Your task to perform on an android device: toggle javascript in the chrome app Image 0: 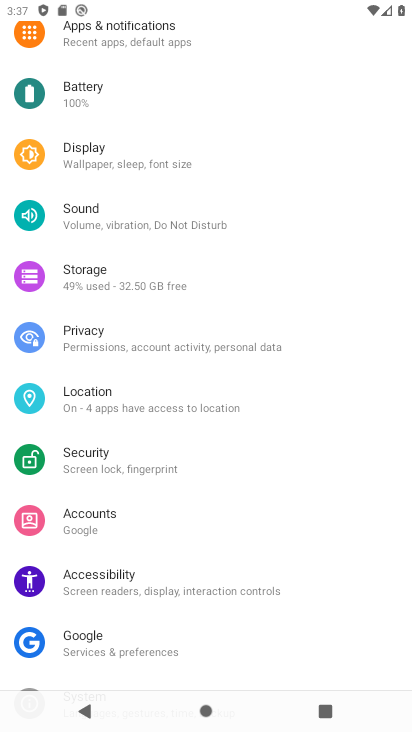
Step 0: press home button
Your task to perform on an android device: toggle javascript in the chrome app Image 1: 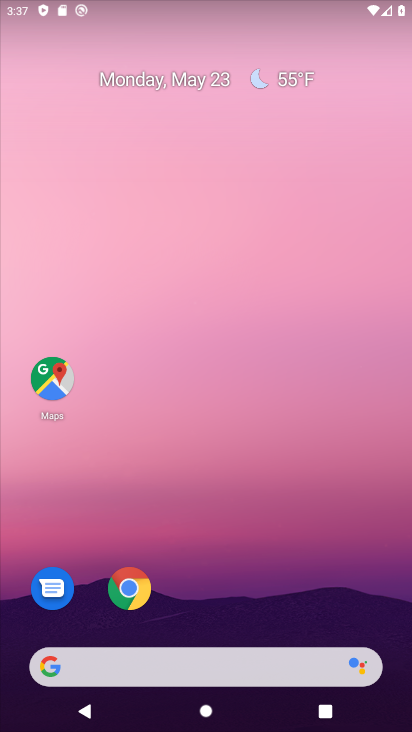
Step 1: click (133, 591)
Your task to perform on an android device: toggle javascript in the chrome app Image 2: 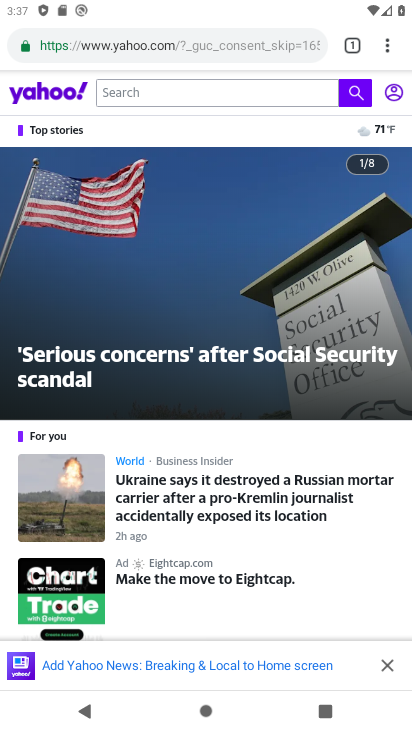
Step 2: click (380, 43)
Your task to perform on an android device: toggle javascript in the chrome app Image 3: 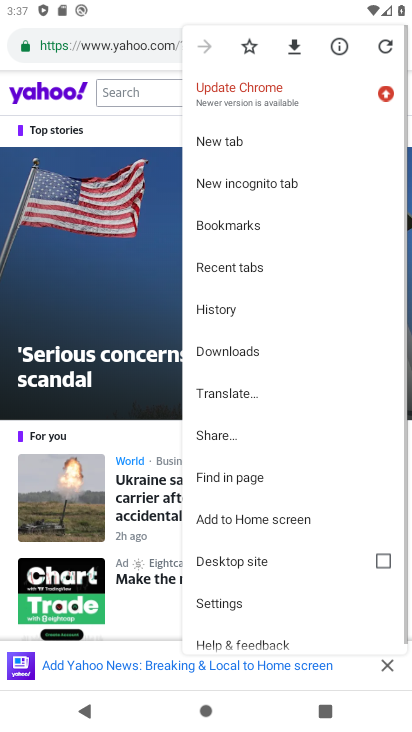
Step 3: click (245, 606)
Your task to perform on an android device: toggle javascript in the chrome app Image 4: 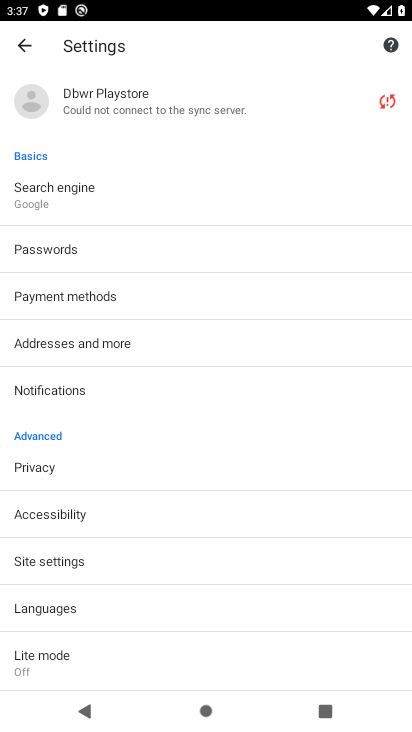
Step 4: click (74, 562)
Your task to perform on an android device: toggle javascript in the chrome app Image 5: 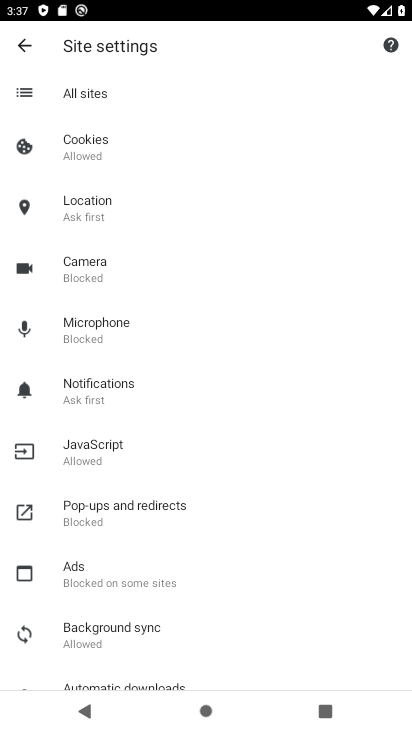
Step 5: click (88, 435)
Your task to perform on an android device: toggle javascript in the chrome app Image 6: 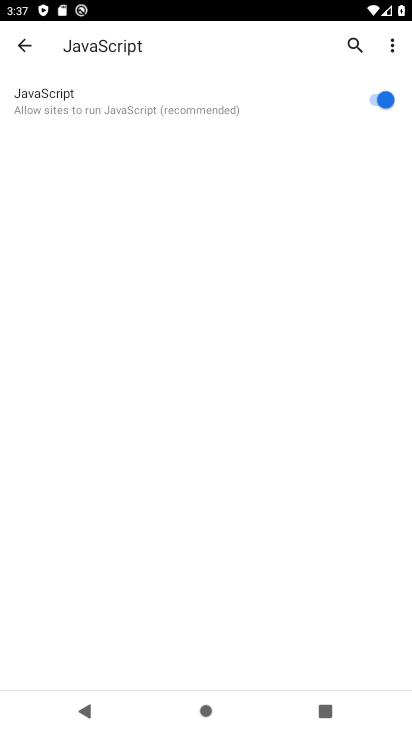
Step 6: click (378, 98)
Your task to perform on an android device: toggle javascript in the chrome app Image 7: 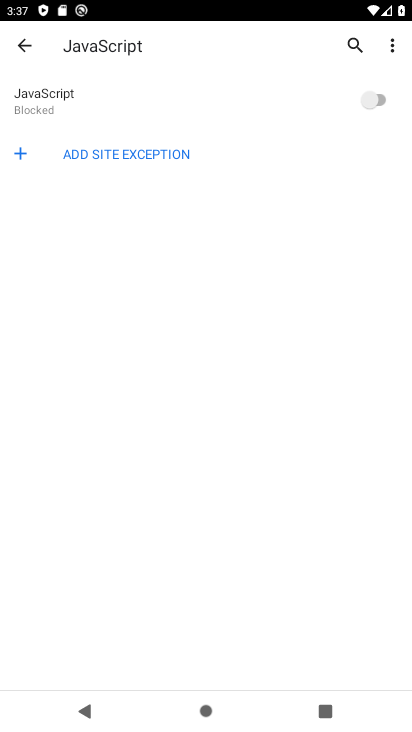
Step 7: task complete